Your task to perform on an android device: Set the phone to "Do not disturb". Image 0: 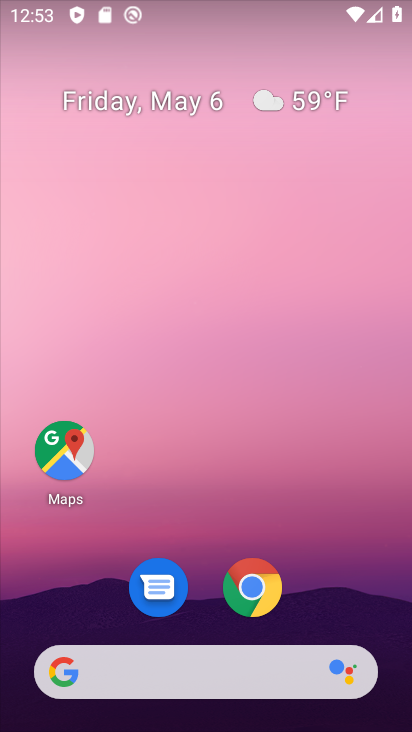
Step 0: drag from (227, 689) to (287, 215)
Your task to perform on an android device: Set the phone to "Do not disturb". Image 1: 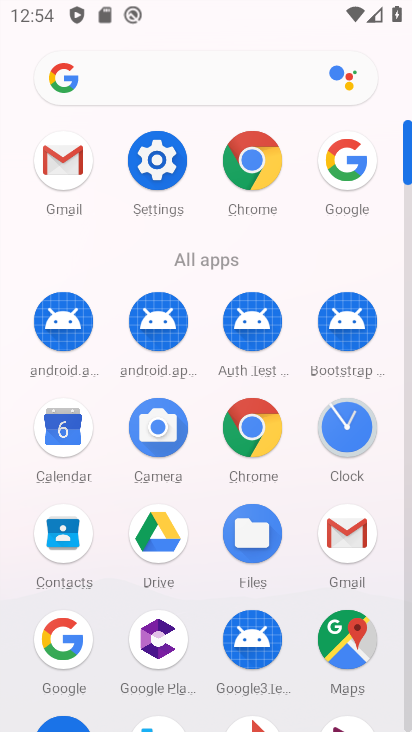
Step 1: drag from (210, 0) to (163, 453)
Your task to perform on an android device: Set the phone to "Do not disturb". Image 2: 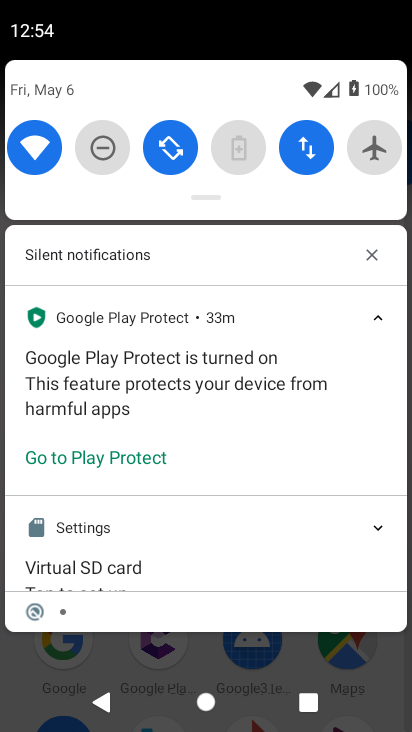
Step 2: click (103, 139)
Your task to perform on an android device: Set the phone to "Do not disturb". Image 3: 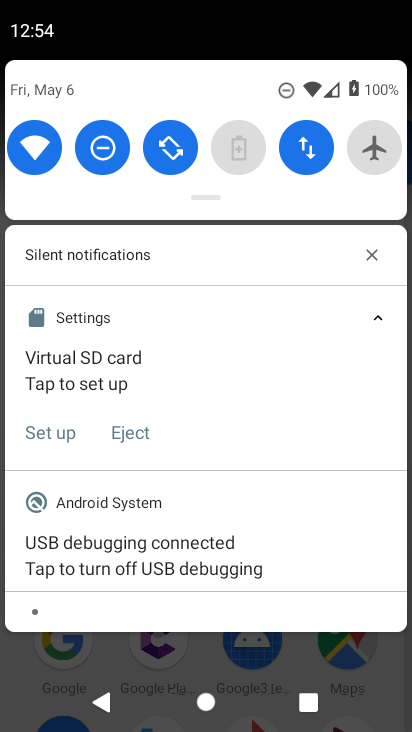
Step 3: task complete